Your task to perform on an android device: empty trash in google photos Image 0: 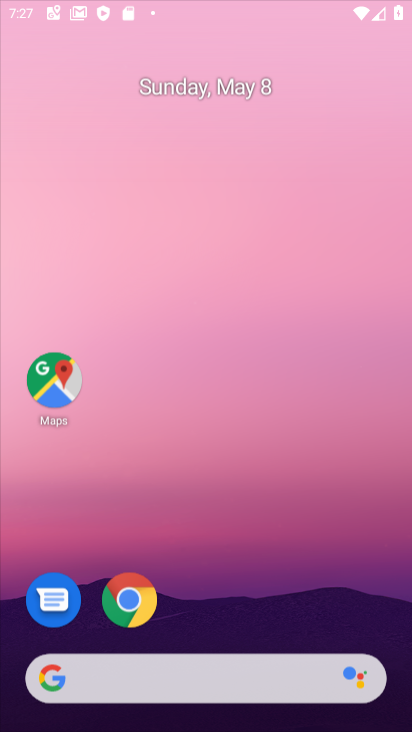
Step 0: press home button
Your task to perform on an android device: empty trash in google photos Image 1: 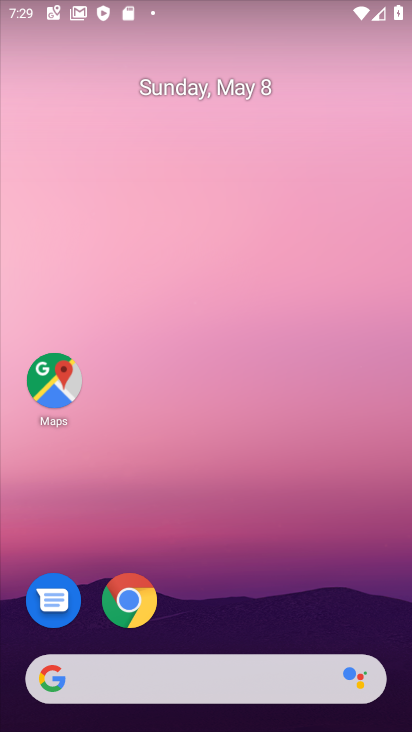
Step 1: drag from (228, 688) to (303, 277)
Your task to perform on an android device: empty trash in google photos Image 2: 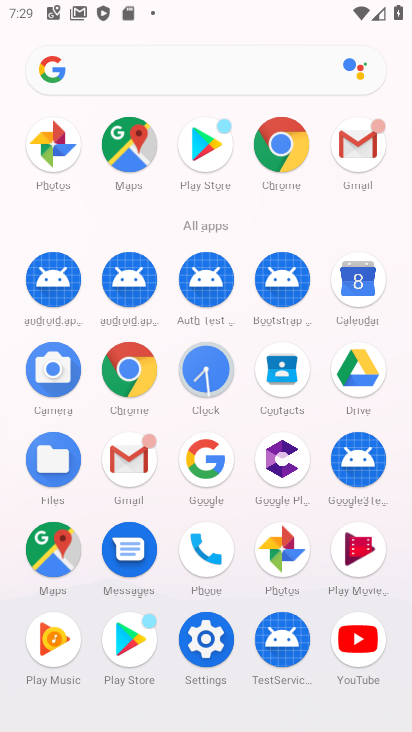
Step 2: click (283, 572)
Your task to perform on an android device: empty trash in google photos Image 3: 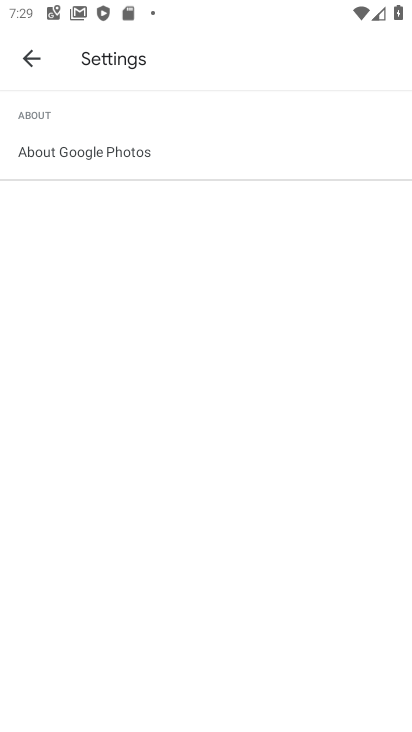
Step 3: click (24, 63)
Your task to perform on an android device: empty trash in google photos Image 4: 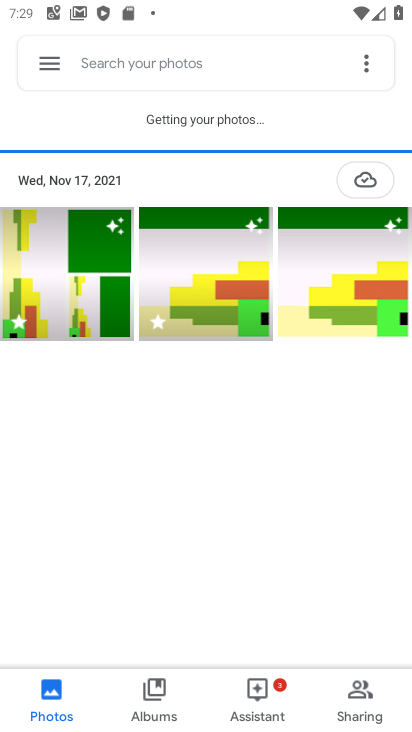
Step 4: click (125, 58)
Your task to perform on an android device: empty trash in google photos Image 5: 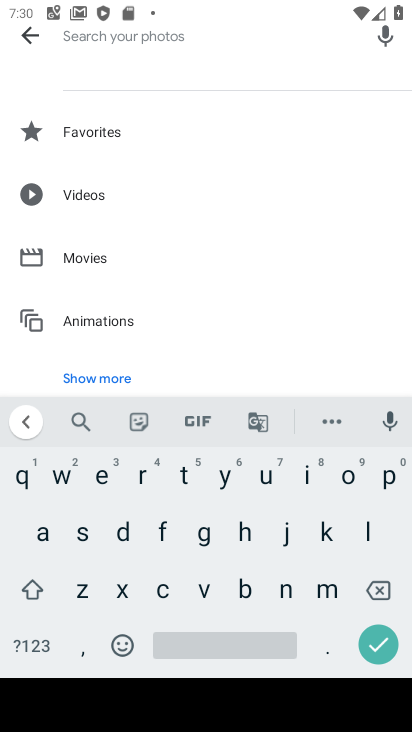
Step 5: click (178, 482)
Your task to perform on an android device: empty trash in google photos Image 6: 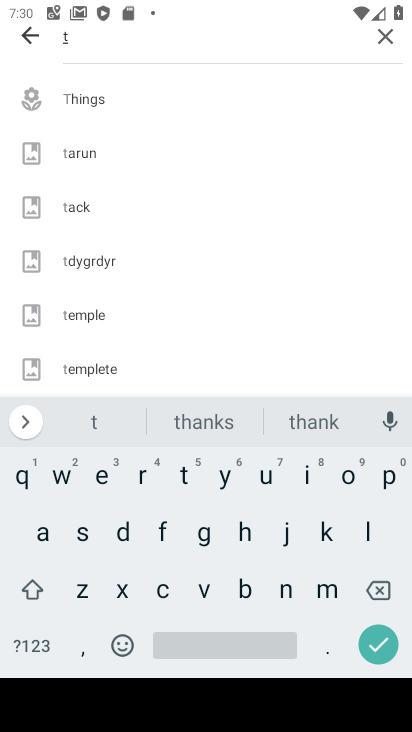
Step 6: click (132, 482)
Your task to perform on an android device: empty trash in google photos Image 7: 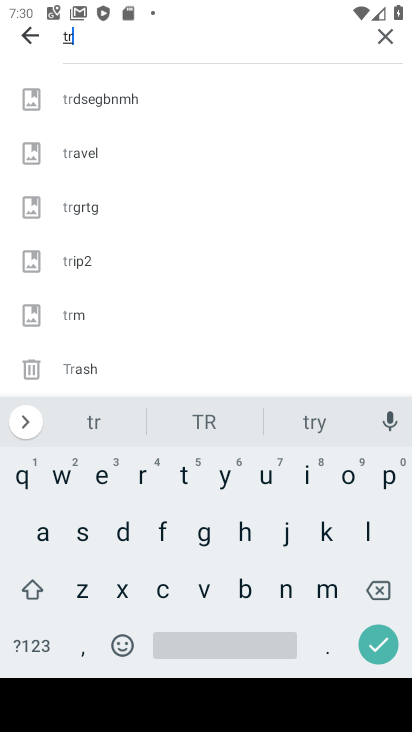
Step 7: click (39, 537)
Your task to perform on an android device: empty trash in google photos Image 8: 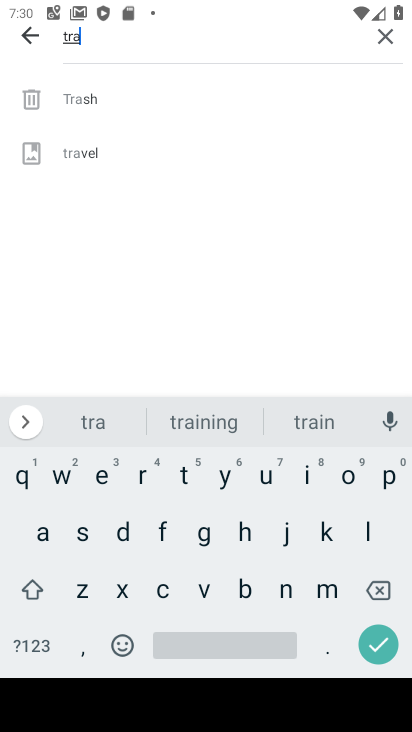
Step 8: click (117, 94)
Your task to perform on an android device: empty trash in google photos Image 9: 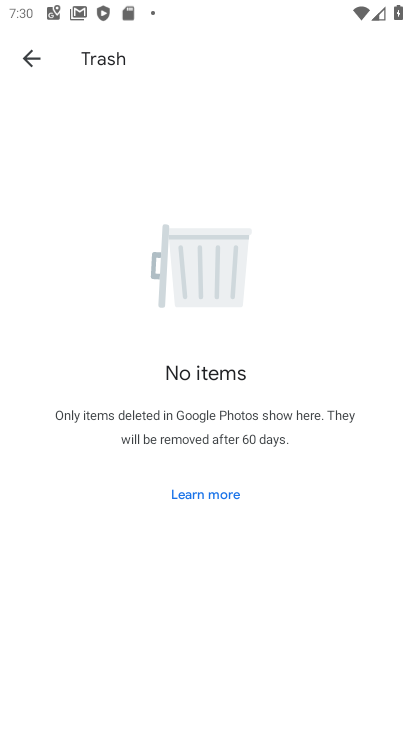
Step 9: task complete